Your task to perform on an android device: Open the calendar and show me this week's events? Image 0: 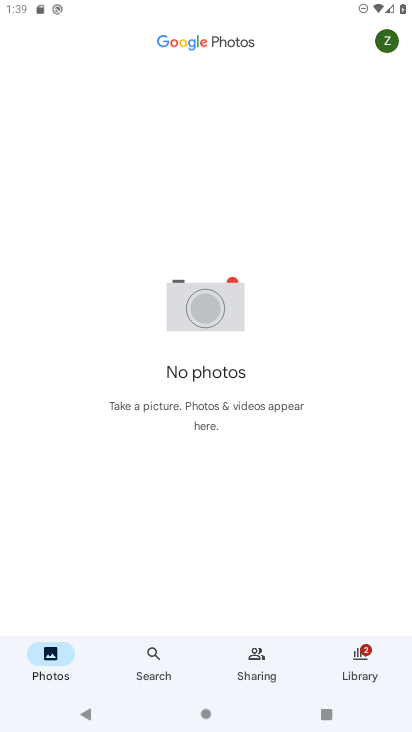
Step 0: press home button
Your task to perform on an android device: Open the calendar and show me this week's events? Image 1: 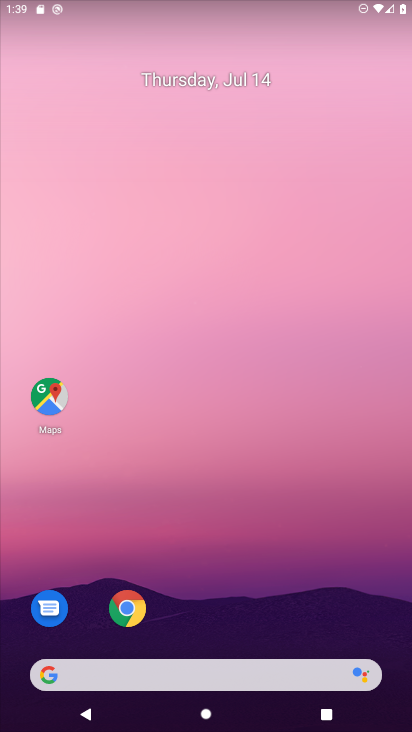
Step 1: drag from (226, 696) to (225, 152)
Your task to perform on an android device: Open the calendar and show me this week's events? Image 2: 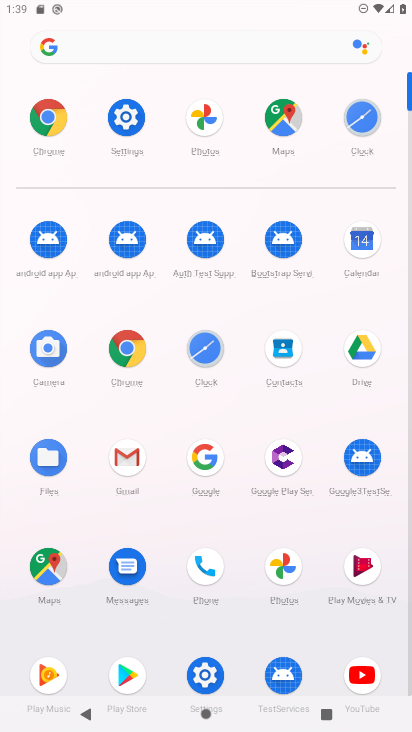
Step 2: click (363, 242)
Your task to perform on an android device: Open the calendar and show me this week's events? Image 3: 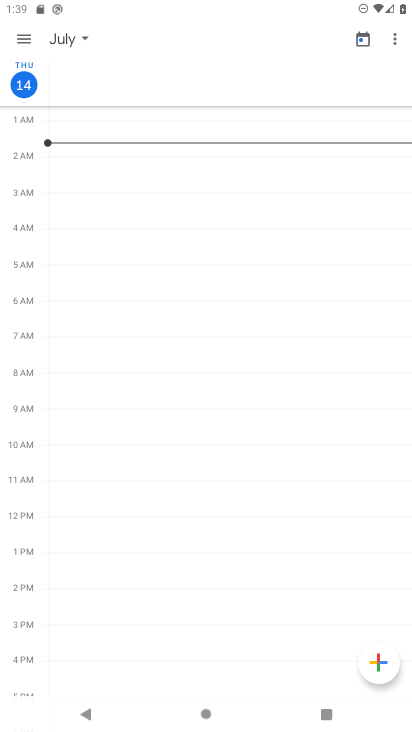
Step 3: click (75, 38)
Your task to perform on an android device: Open the calendar and show me this week's events? Image 4: 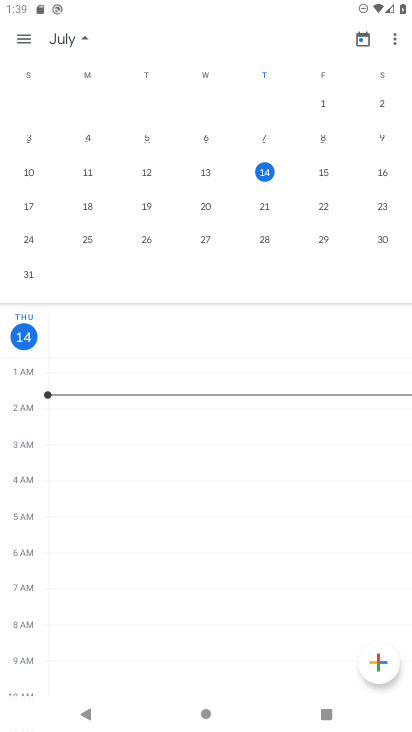
Step 4: click (21, 40)
Your task to perform on an android device: Open the calendar and show me this week's events? Image 5: 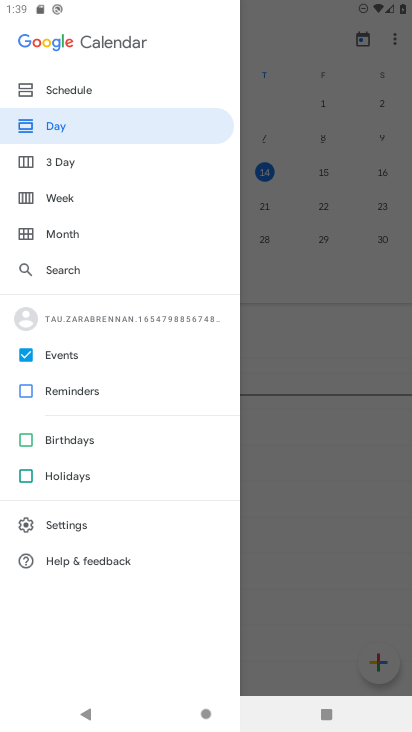
Step 5: click (55, 198)
Your task to perform on an android device: Open the calendar and show me this week's events? Image 6: 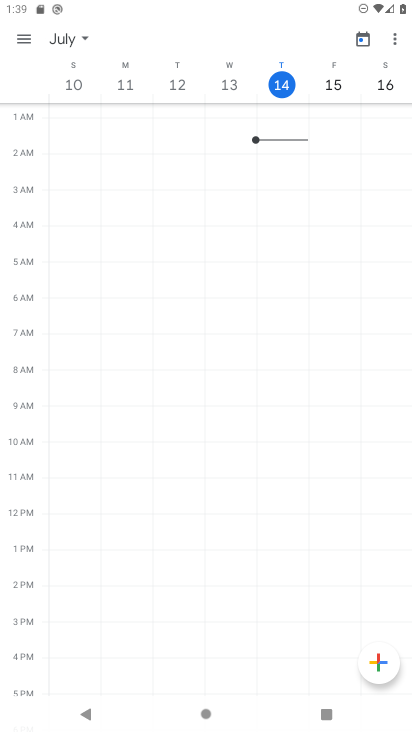
Step 6: task complete